Your task to perform on an android device: turn on location history Image 0: 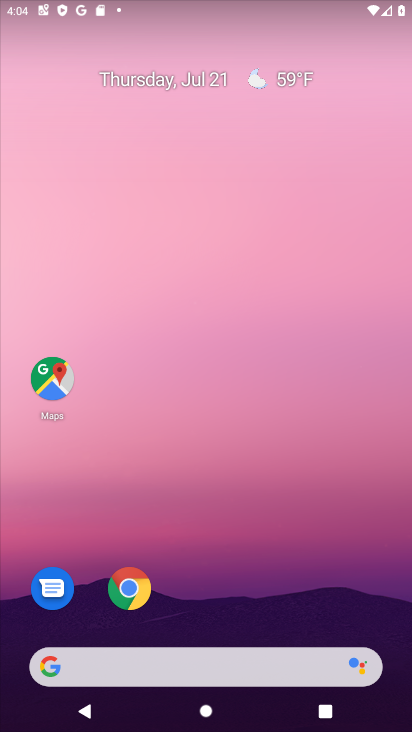
Step 0: drag from (234, 719) to (175, 264)
Your task to perform on an android device: turn on location history Image 1: 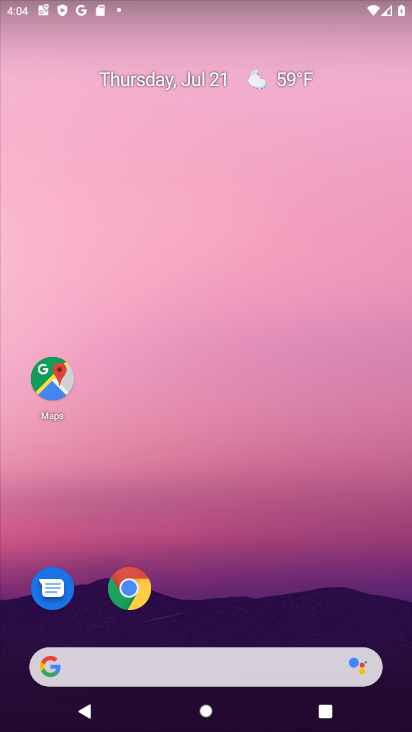
Step 1: drag from (233, 712) to (274, 35)
Your task to perform on an android device: turn on location history Image 2: 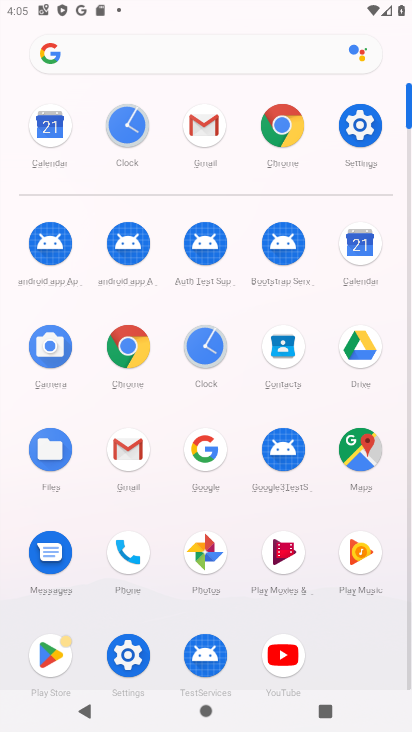
Step 2: click (357, 131)
Your task to perform on an android device: turn on location history Image 3: 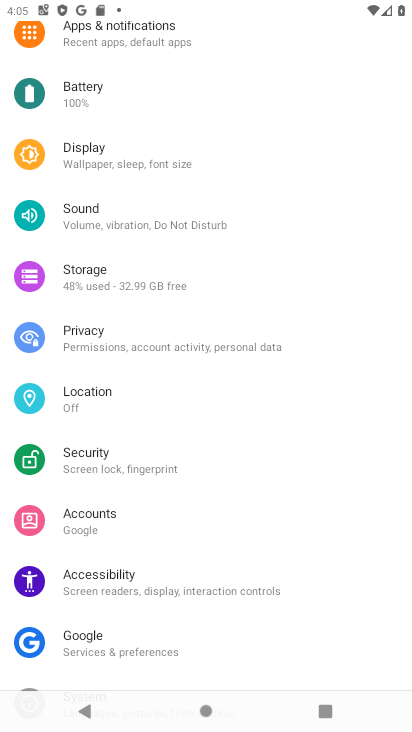
Step 3: click (79, 396)
Your task to perform on an android device: turn on location history Image 4: 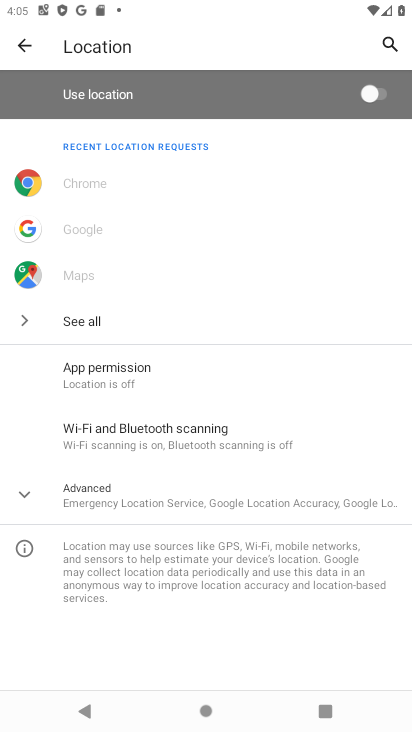
Step 4: click (84, 494)
Your task to perform on an android device: turn on location history Image 5: 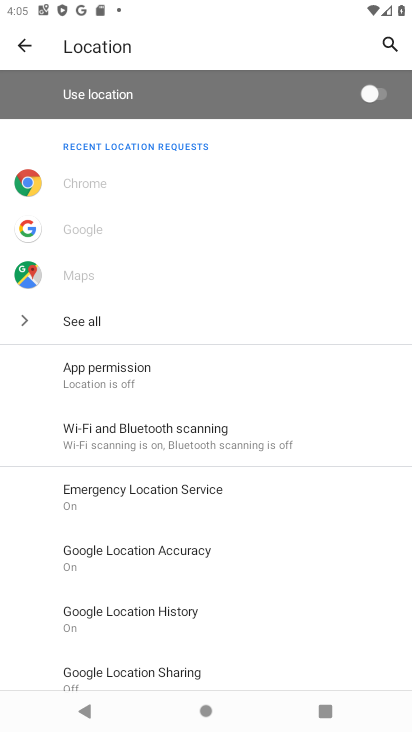
Step 5: click (133, 613)
Your task to perform on an android device: turn on location history Image 6: 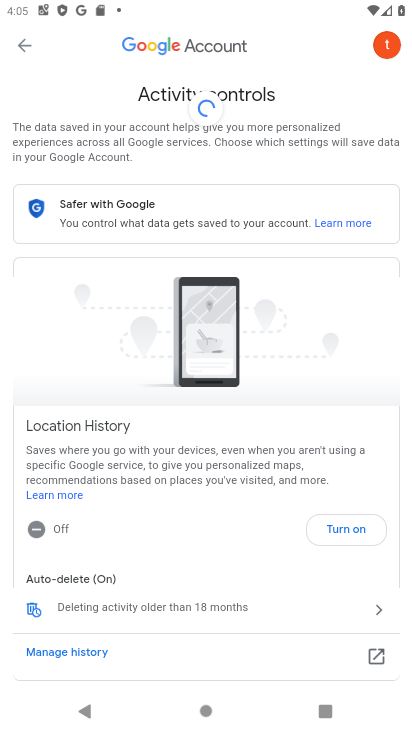
Step 6: click (334, 534)
Your task to perform on an android device: turn on location history Image 7: 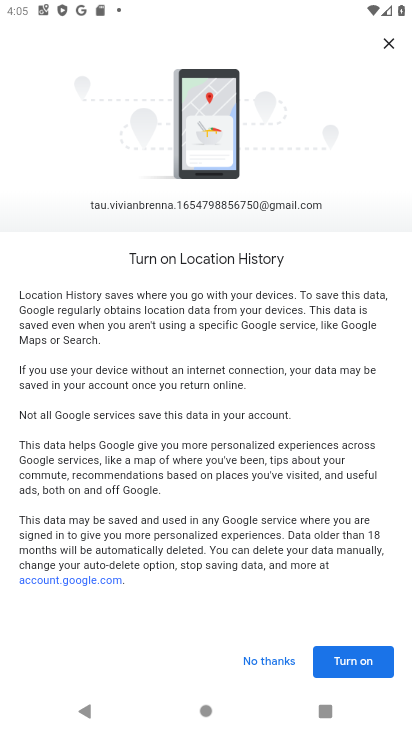
Step 7: click (353, 665)
Your task to perform on an android device: turn on location history Image 8: 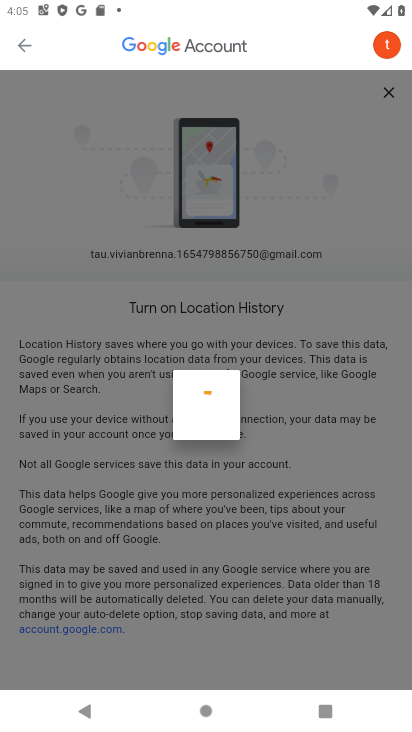
Step 8: click (353, 665)
Your task to perform on an android device: turn on location history Image 9: 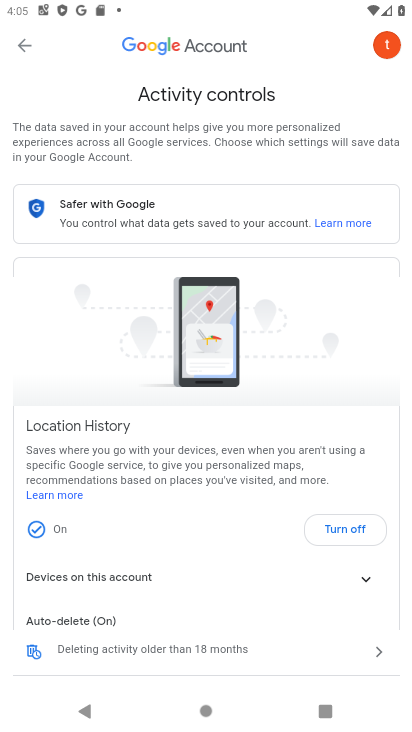
Step 9: task complete